Your task to perform on an android device: Open the web browser Image 0: 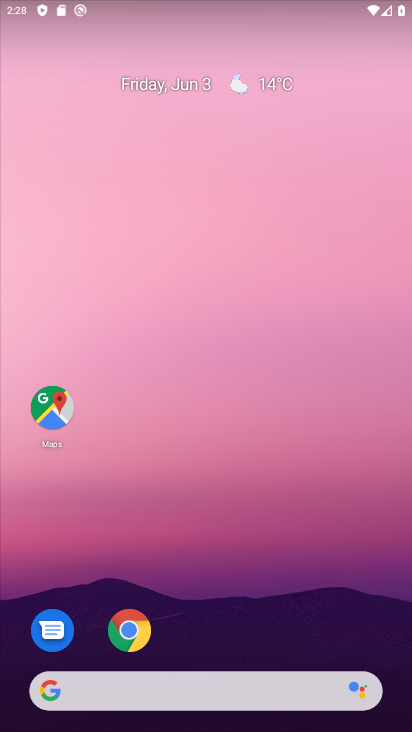
Step 0: press home button
Your task to perform on an android device: Open the web browser Image 1: 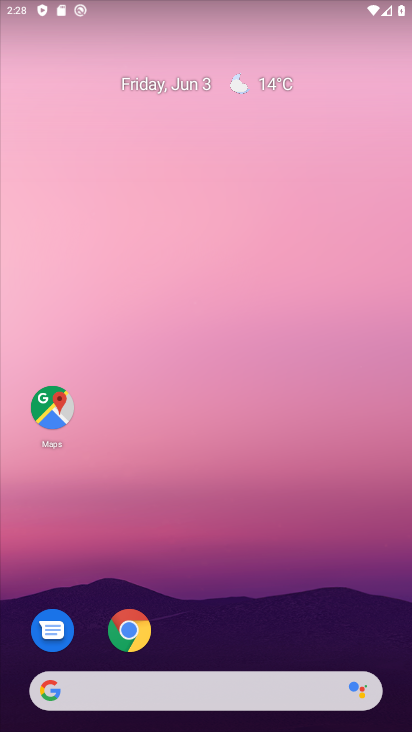
Step 1: drag from (257, 610) to (228, 115)
Your task to perform on an android device: Open the web browser Image 2: 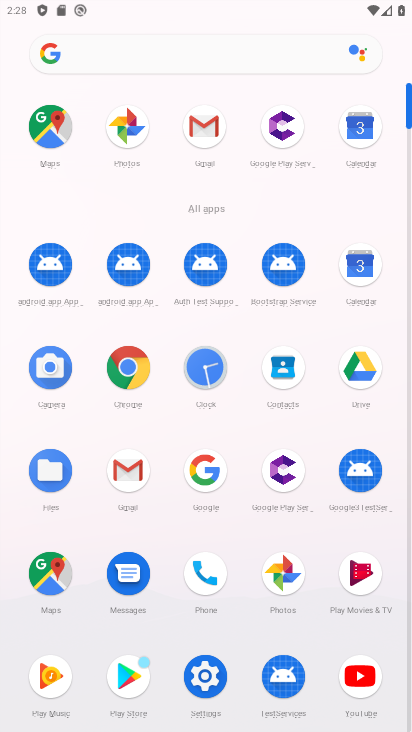
Step 2: click (133, 373)
Your task to perform on an android device: Open the web browser Image 3: 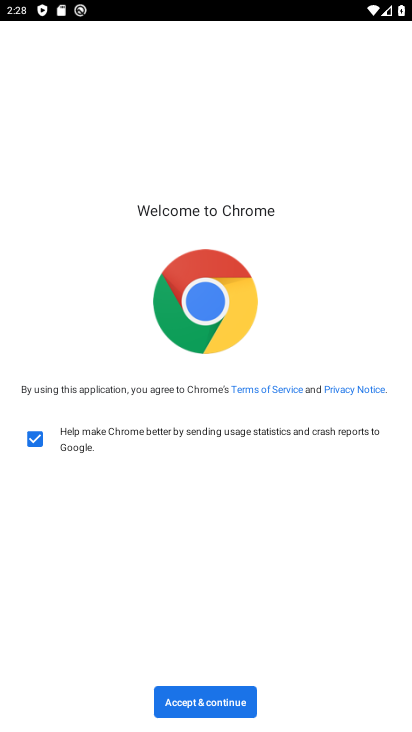
Step 3: click (206, 691)
Your task to perform on an android device: Open the web browser Image 4: 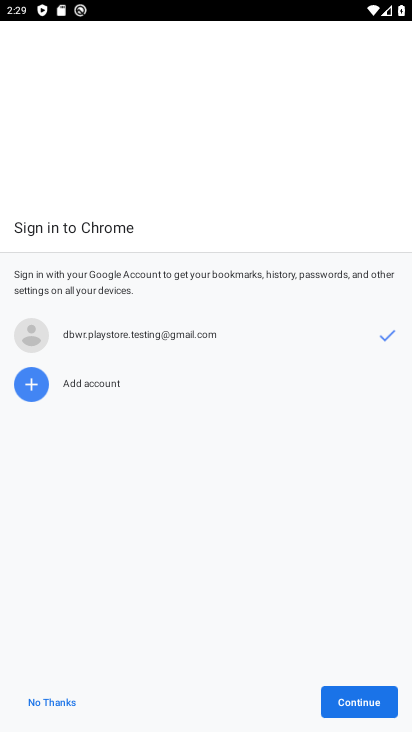
Step 4: click (349, 705)
Your task to perform on an android device: Open the web browser Image 5: 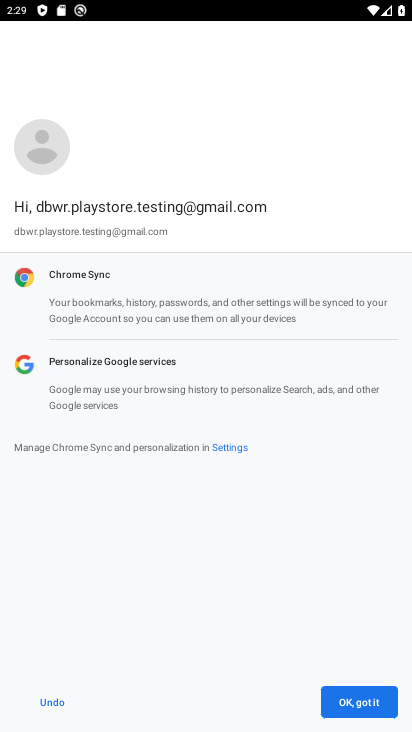
Step 5: click (349, 705)
Your task to perform on an android device: Open the web browser Image 6: 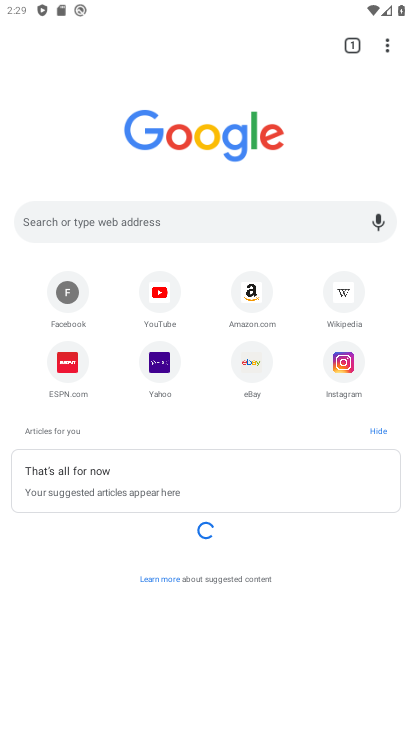
Step 6: task complete